Your task to perform on an android device: add a contact in the contacts app Image 0: 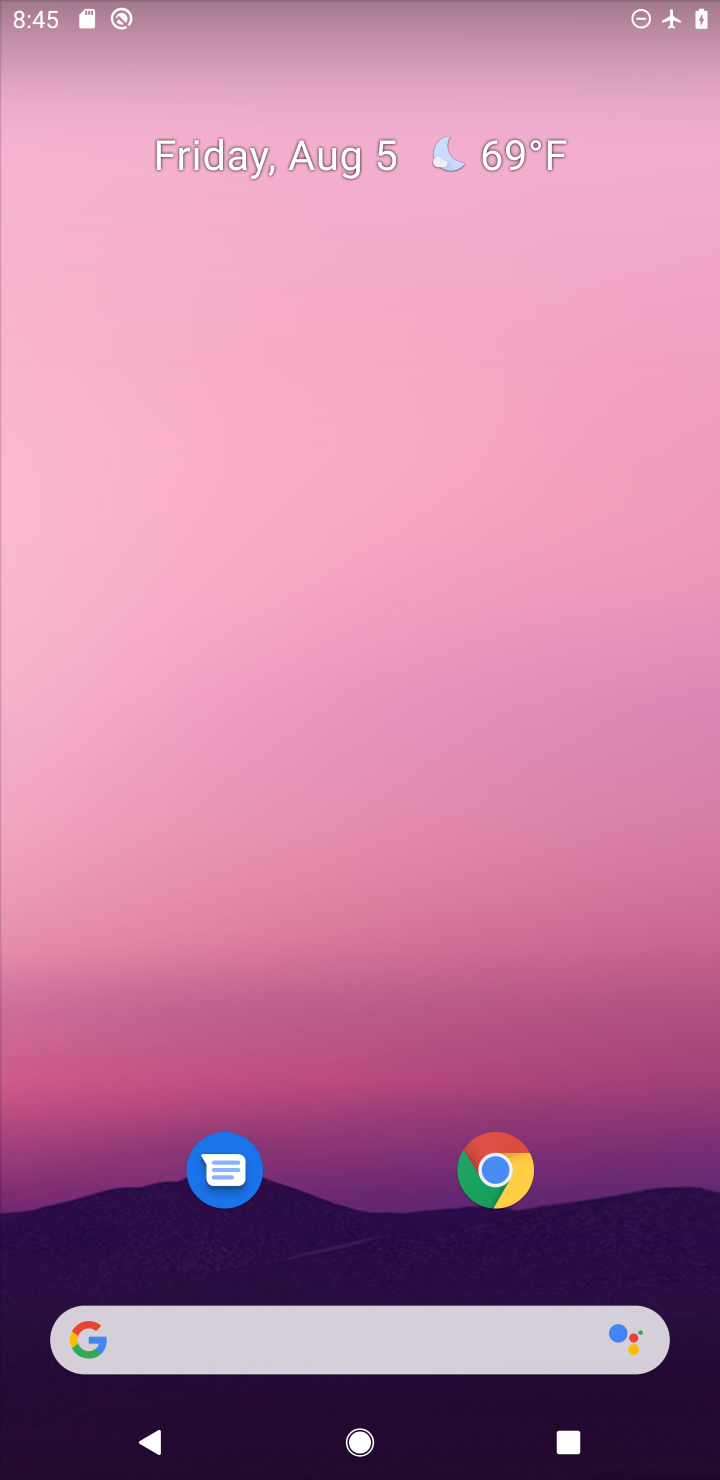
Step 0: drag from (647, 1285) to (593, 123)
Your task to perform on an android device: add a contact in the contacts app Image 1: 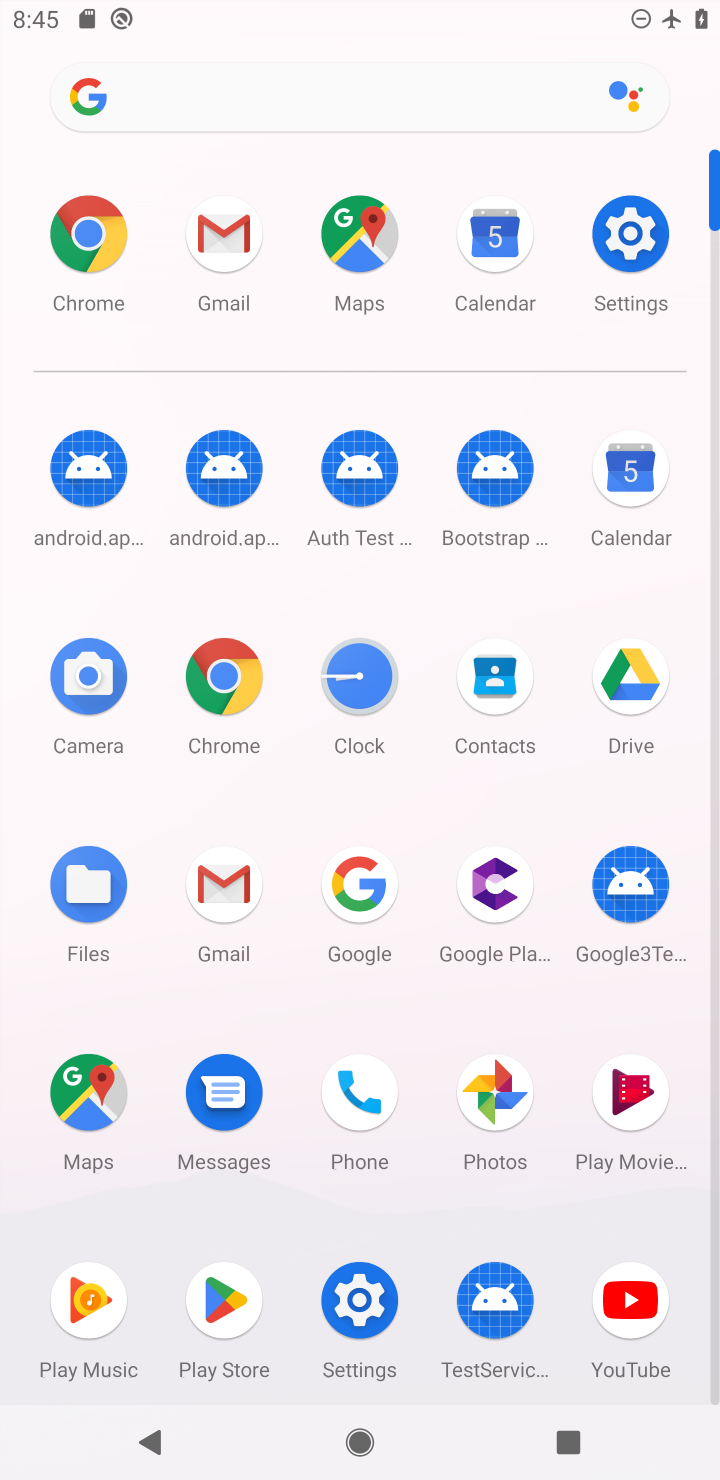
Step 1: click (493, 679)
Your task to perform on an android device: add a contact in the contacts app Image 2: 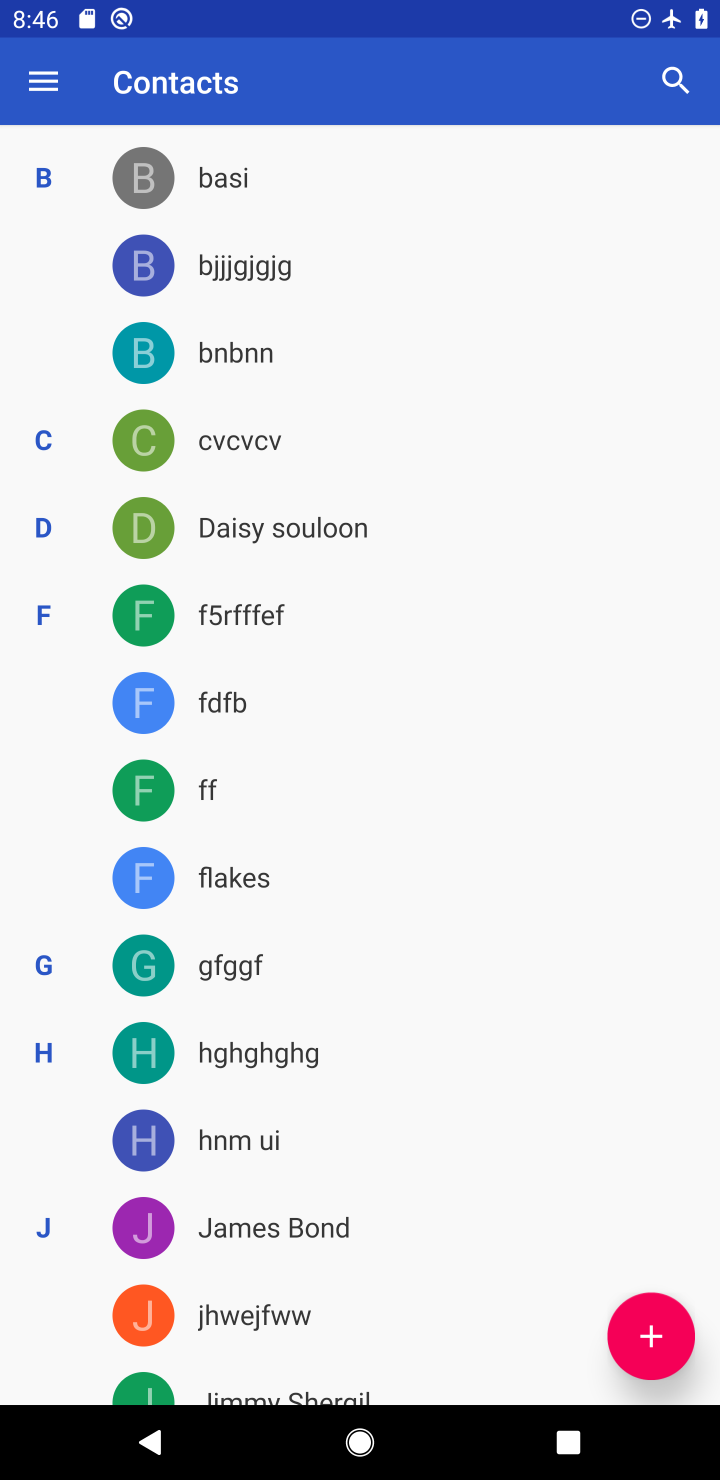
Step 2: click (649, 1335)
Your task to perform on an android device: add a contact in the contacts app Image 3: 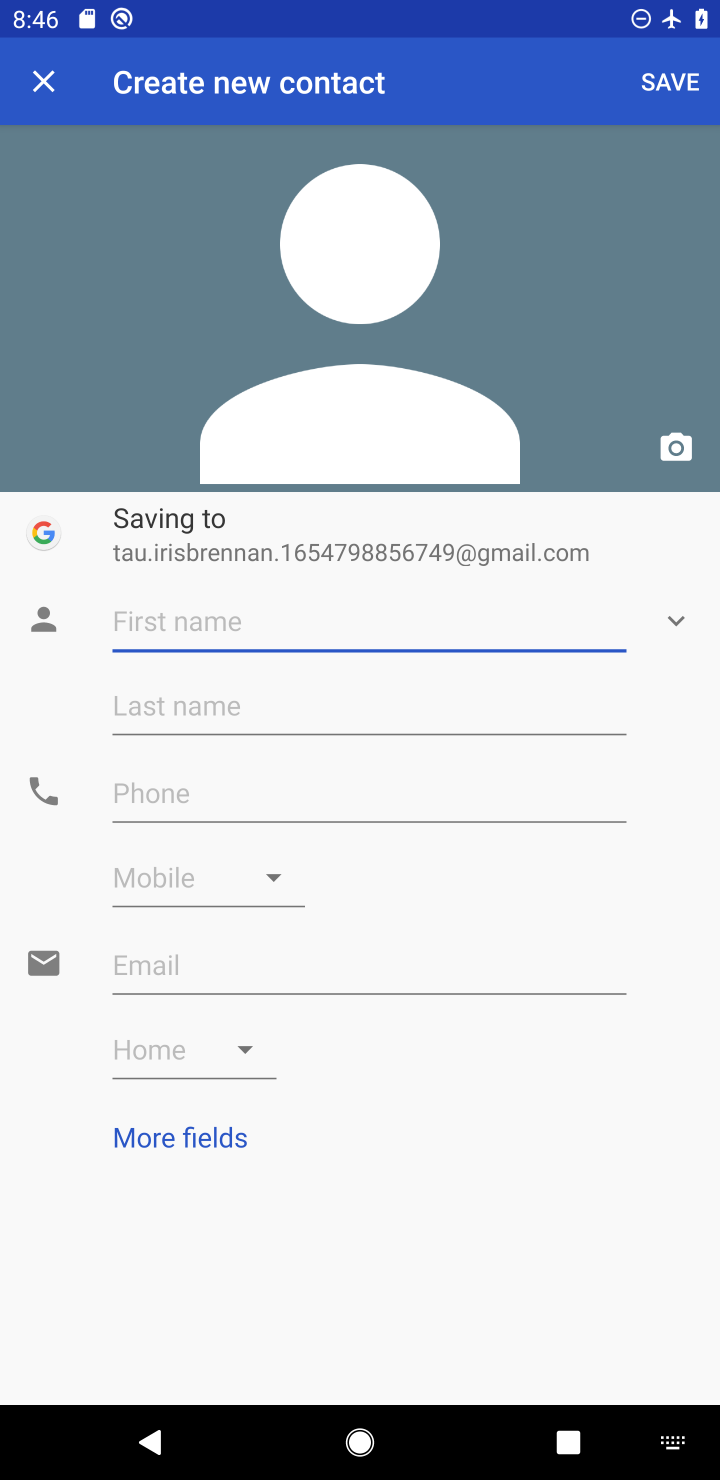
Step 3: type "mstrtutop"
Your task to perform on an android device: add a contact in the contacts app Image 4: 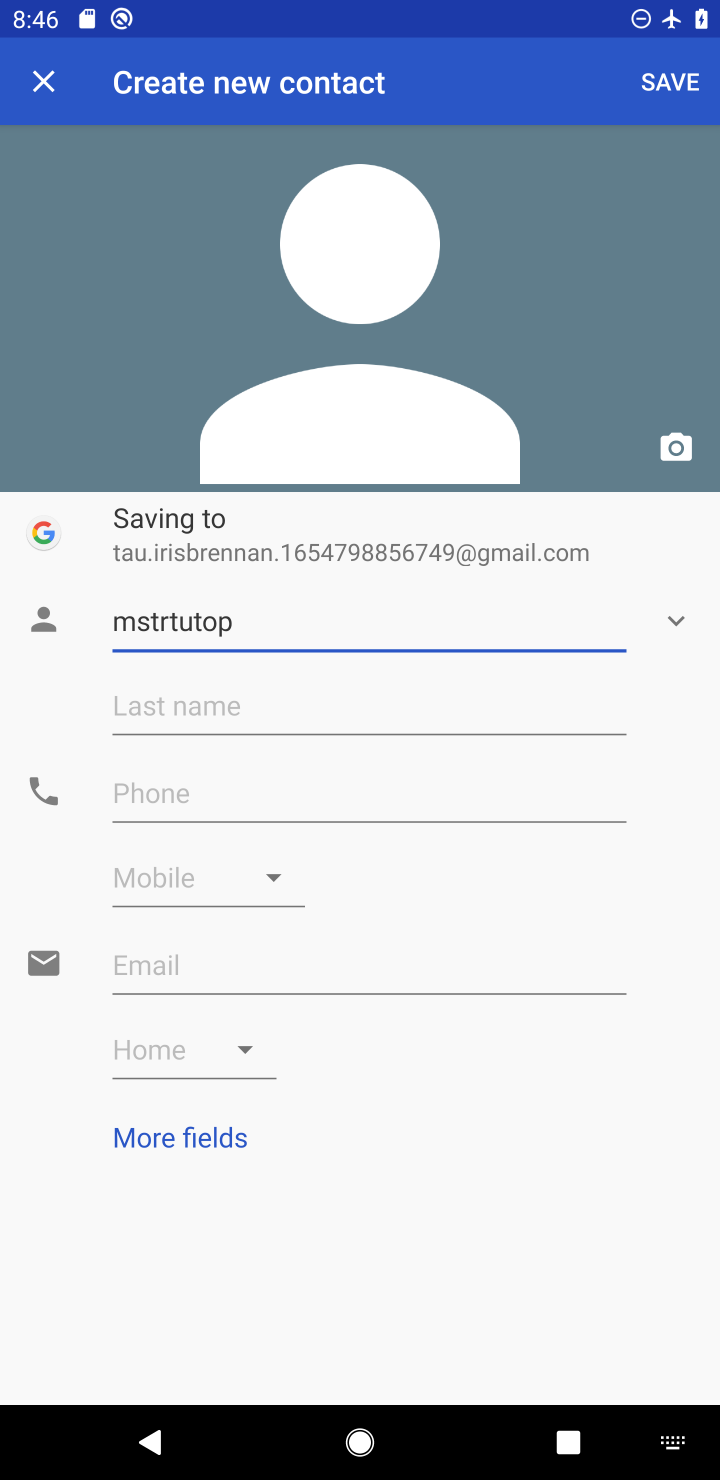
Step 4: click (187, 801)
Your task to perform on an android device: add a contact in the contacts app Image 5: 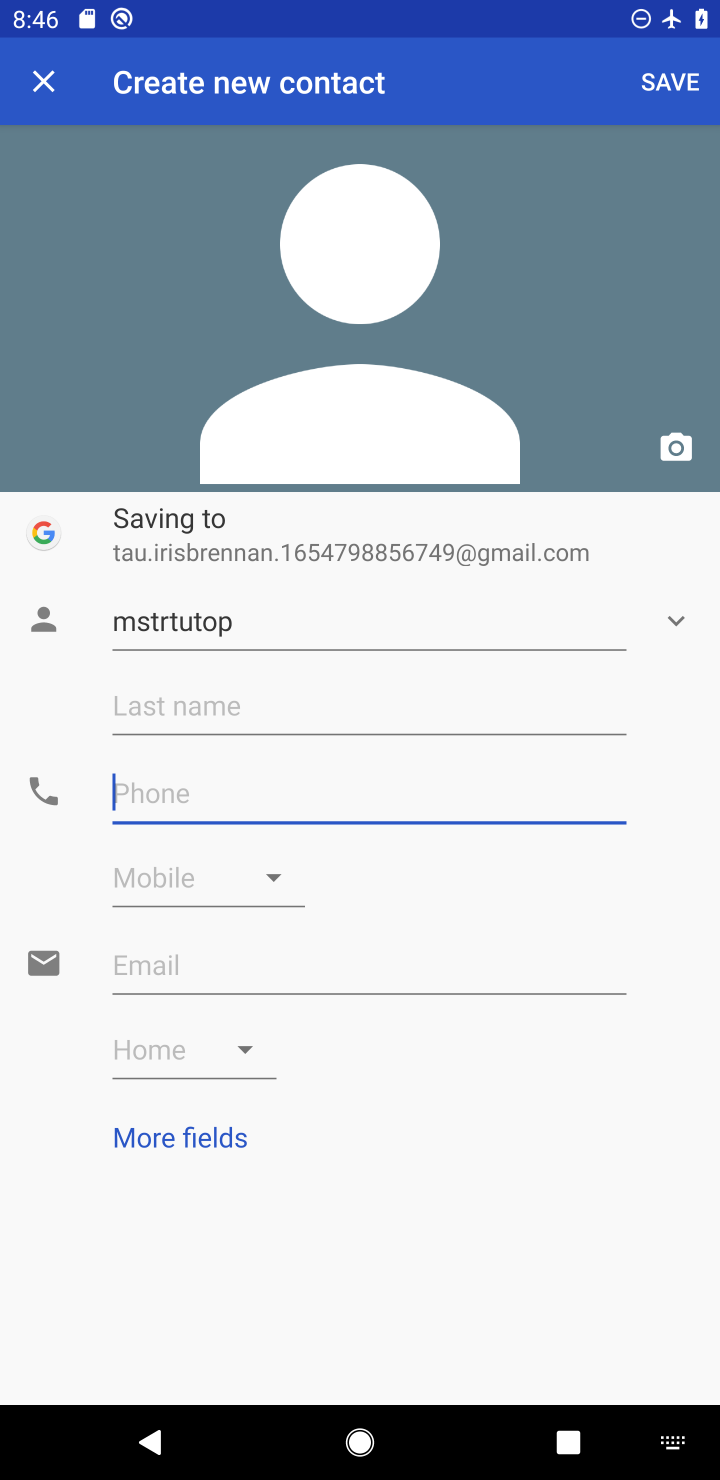
Step 5: type "09078676532"
Your task to perform on an android device: add a contact in the contacts app Image 6: 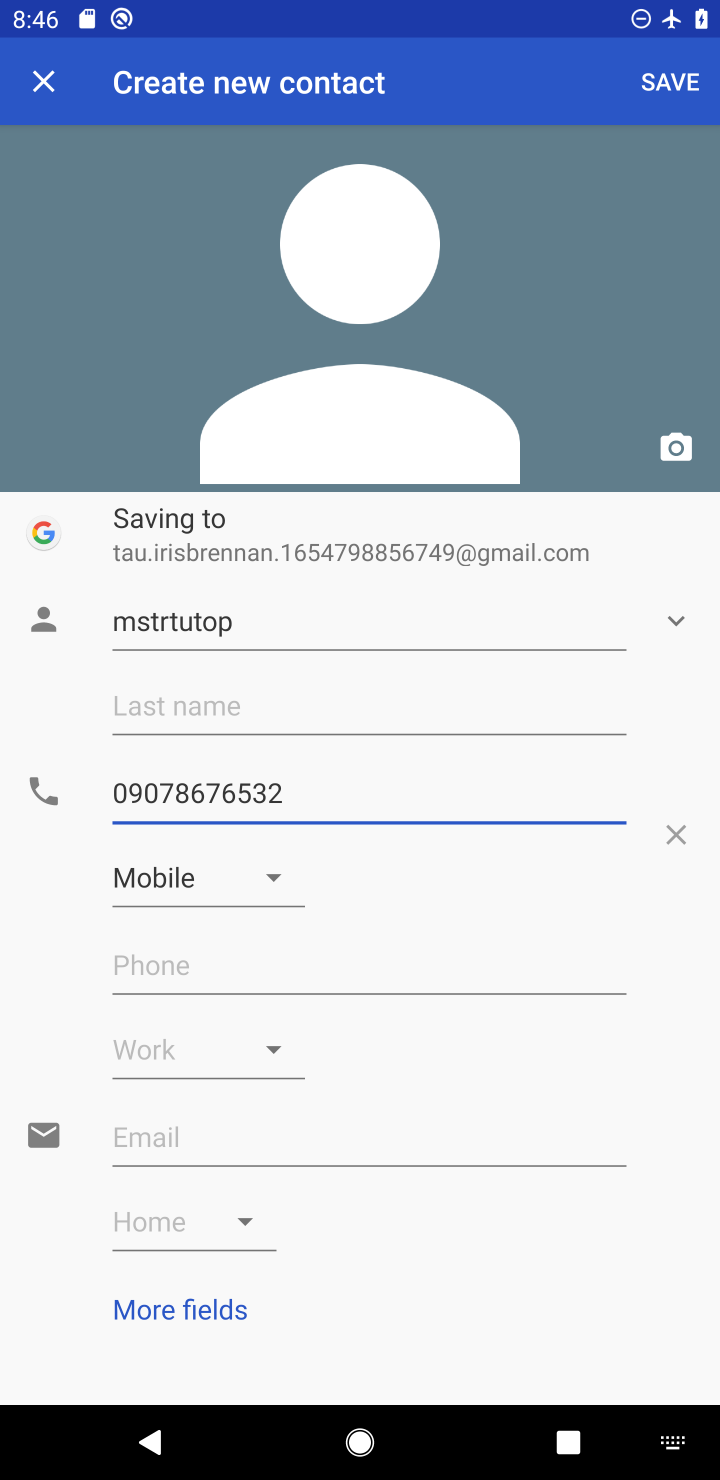
Step 6: click (655, 84)
Your task to perform on an android device: add a contact in the contacts app Image 7: 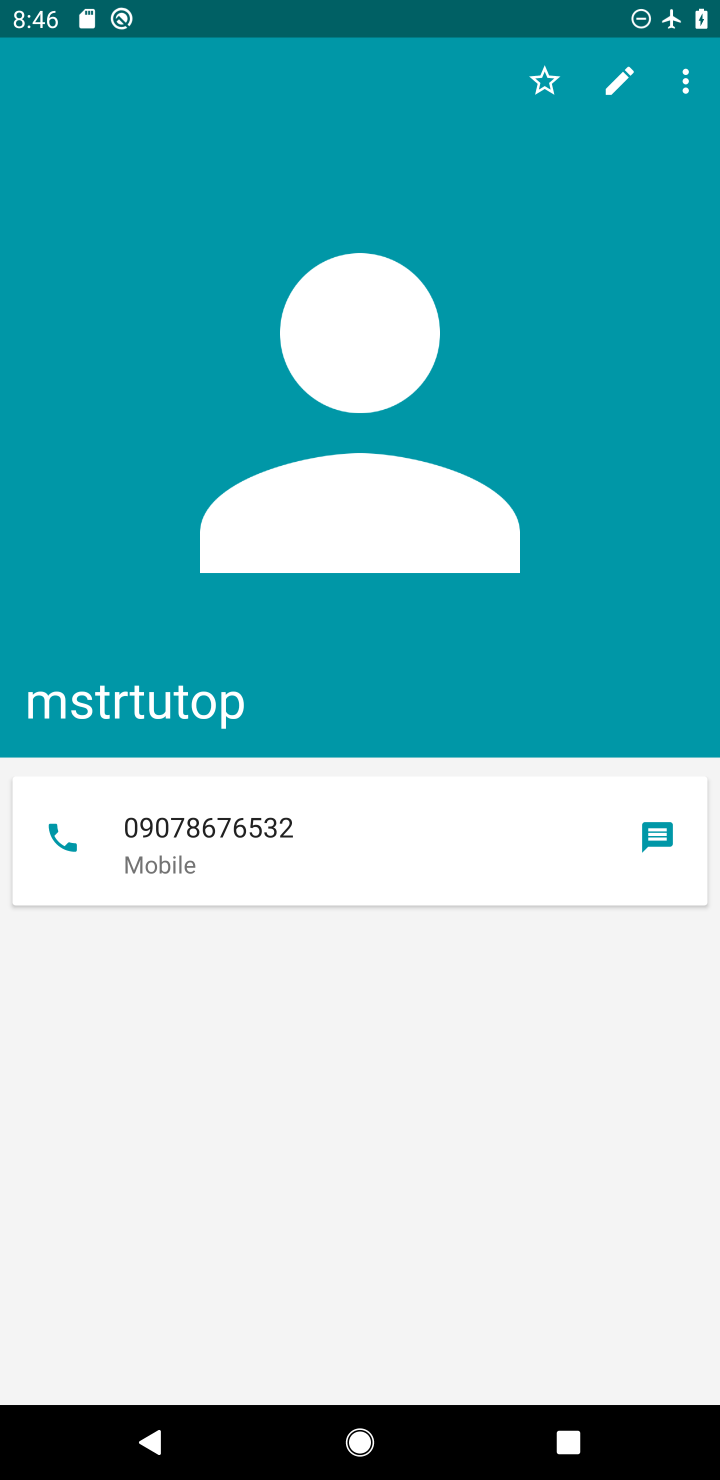
Step 7: task complete